Your task to perform on an android device: Search for 24"x36" picture frame on Home Depot. Image 0: 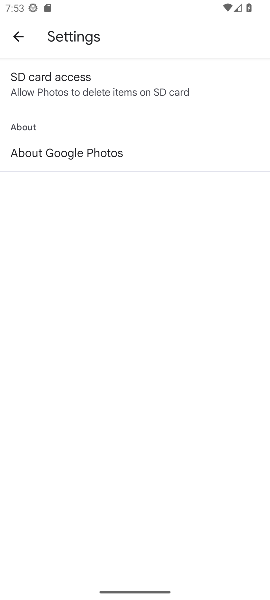
Step 0: press home button
Your task to perform on an android device: Search for 24"x36" picture frame on Home Depot. Image 1: 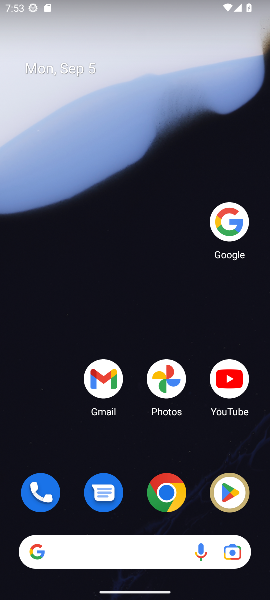
Step 1: click (236, 207)
Your task to perform on an android device: Search for 24"x36" picture frame on Home Depot. Image 2: 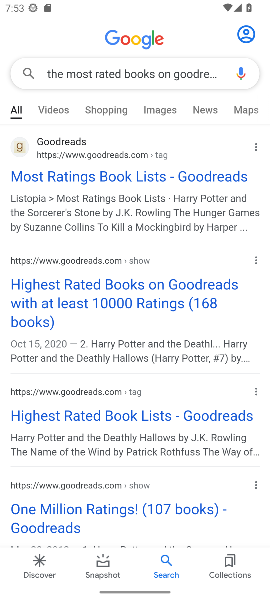
Step 2: click (193, 72)
Your task to perform on an android device: Search for 24"x36" picture frame on Home Depot. Image 3: 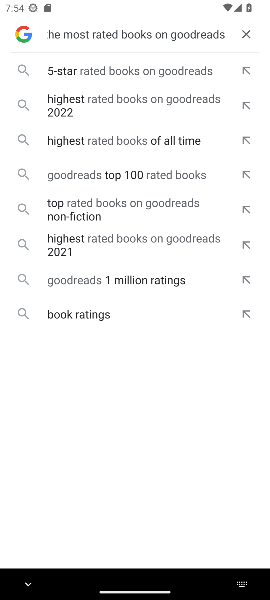
Step 3: click (252, 32)
Your task to perform on an android device: Search for 24"x36" picture frame on Home Depot. Image 4: 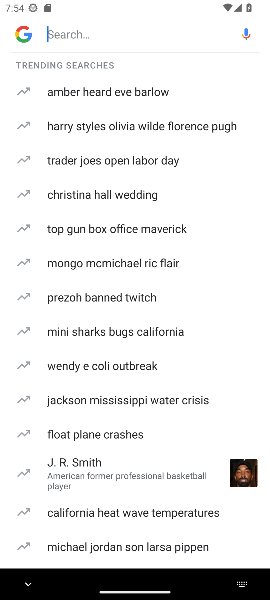
Step 4: click (164, 27)
Your task to perform on an android device: Search for 24"x36" picture frame on Home Depot. Image 5: 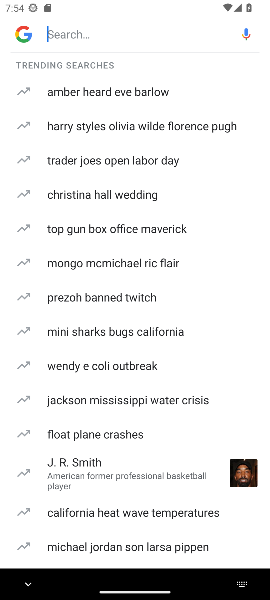
Step 5: type " picture frame on Home Depot "
Your task to perform on an android device: Search for 24"x36" picture frame on Home Depot. Image 6: 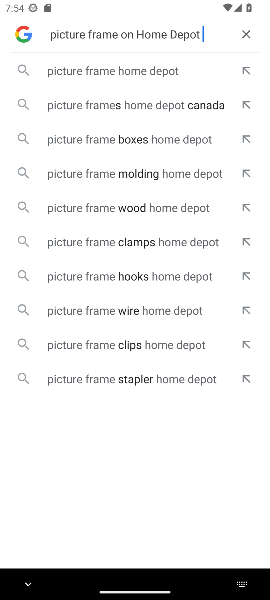
Step 6: click (130, 72)
Your task to perform on an android device: Search for 24"x36" picture frame on Home Depot. Image 7: 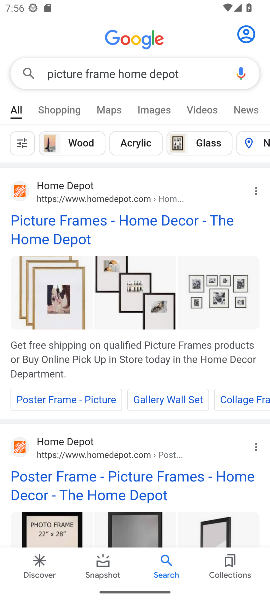
Step 7: task complete